Your task to perform on an android device: turn on showing notifications on the lock screen Image 0: 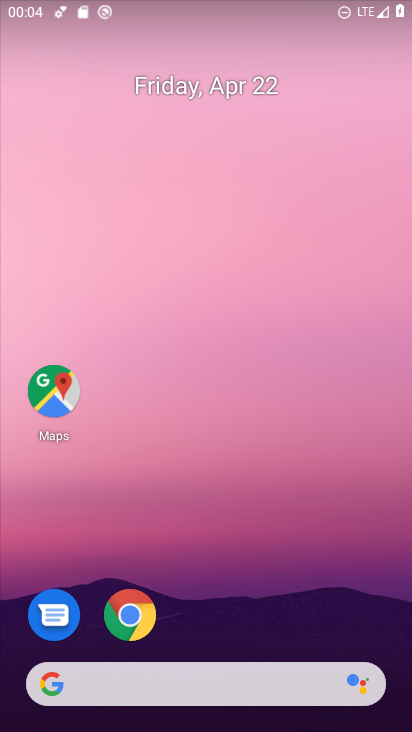
Step 0: drag from (223, 641) to (208, 65)
Your task to perform on an android device: turn on showing notifications on the lock screen Image 1: 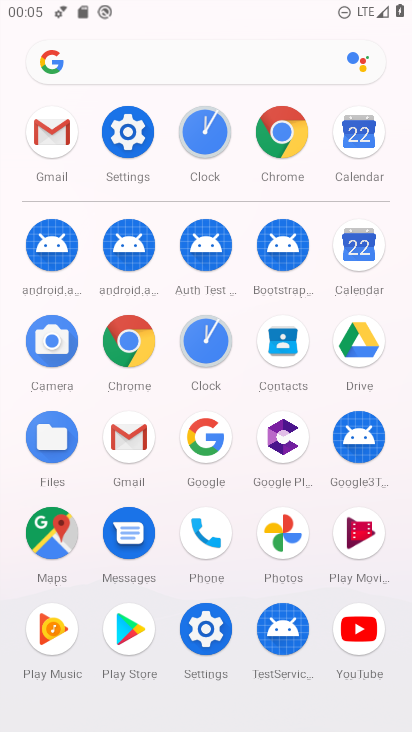
Step 1: click (123, 125)
Your task to perform on an android device: turn on showing notifications on the lock screen Image 2: 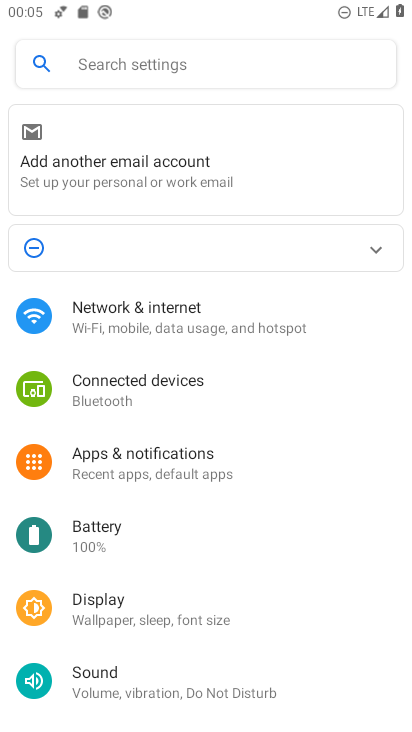
Step 2: click (221, 452)
Your task to perform on an android device: turn on showing notifications on the lock screen Image 3: 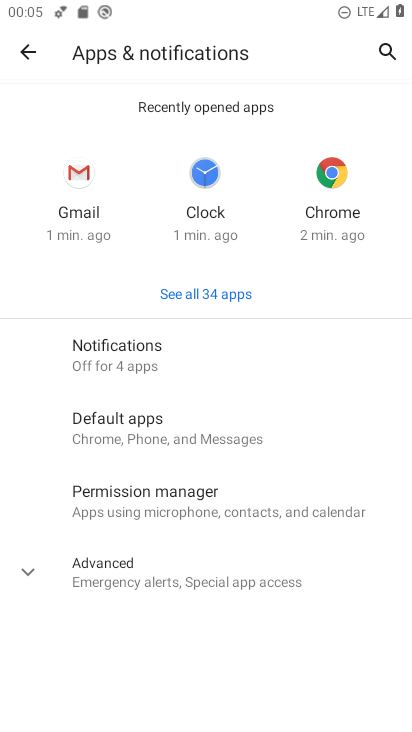
Step 3: click (171, 354)
Your task to perform on an android device: turn on showing notifications on the lock screen Image 4: 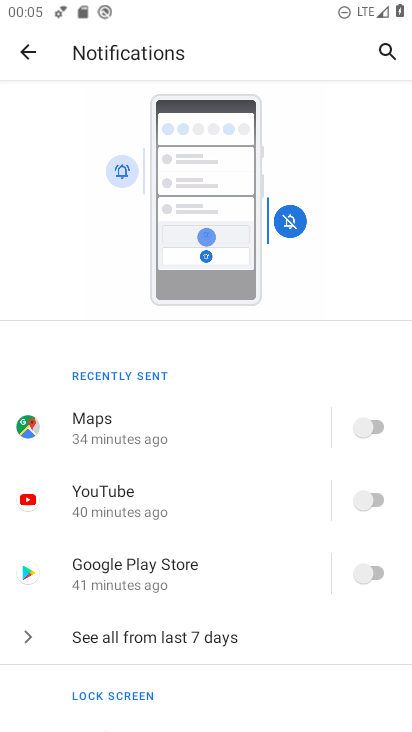
Step 4: drag from (230, 312) to (233, 135)
Your task to perform on an android device: turn on showing notifications on the lock screen Image 5: 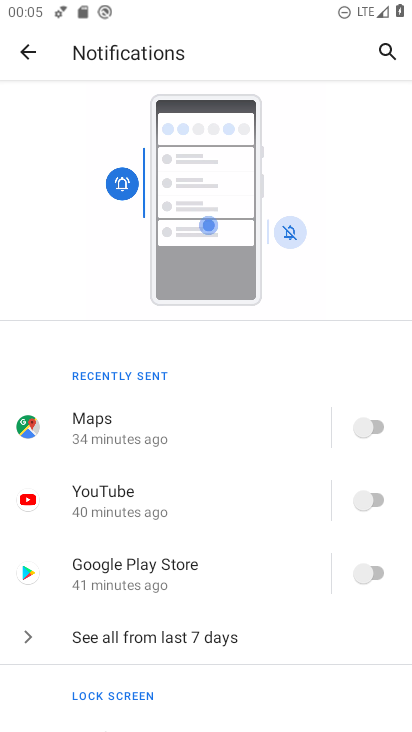
Step 5: drag from (256, 683) to (270, 242)
Your task to perform on an android device: turn on showing notifications on the lock screen Image 6: 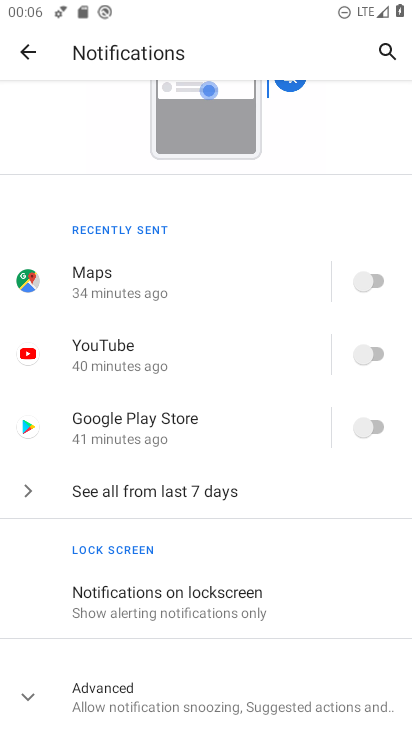
Step 6: click (275, 597)
Your task to perform on an android device: turn on showing notifications on the lock screen Image 7: 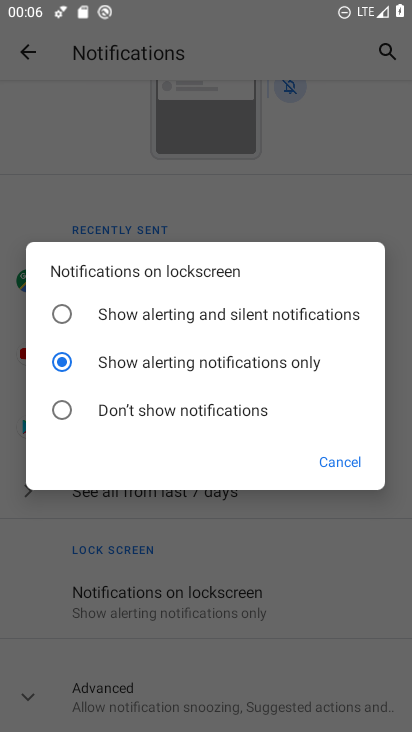
Step 7: click (59, 310)
Your task to perform on an android device: turn on showing notifications on the lock screen Image 8: 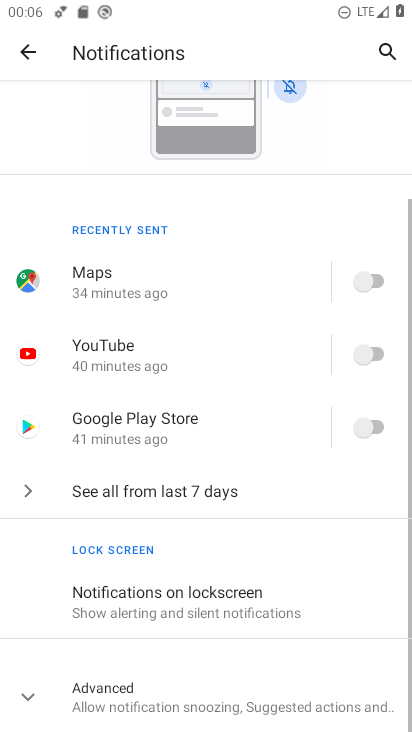
Step 8: task complete